Your task to perform on an android device: turn notification dots on Image 0: 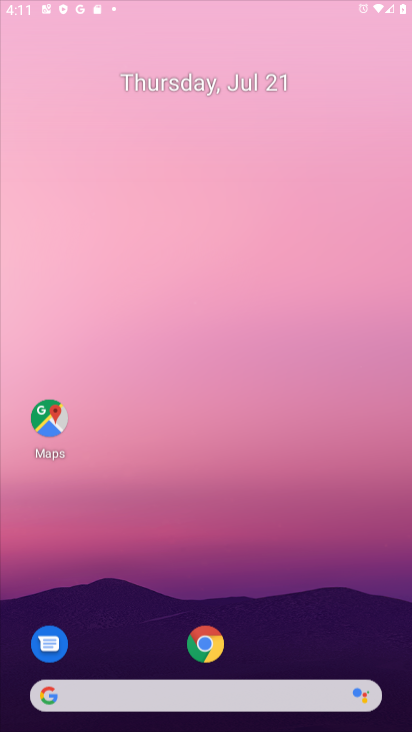
Step 0: press home button
Your task to perform on an android device: turn notification dots on Image 1: 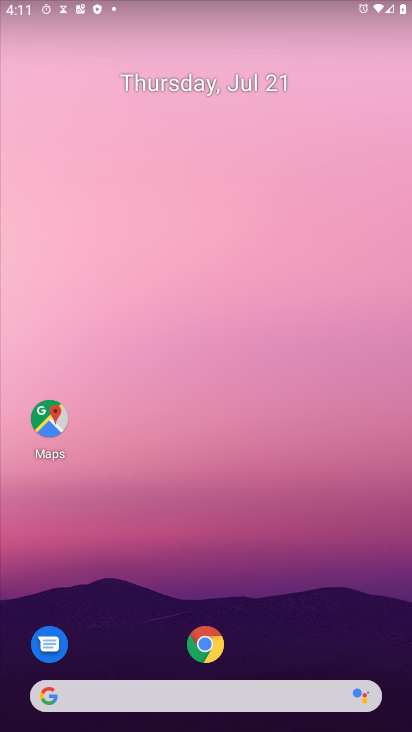
Step 1: drag from (302, 647) to (264, 134)
Your task to perform on an android device: turn notification dots on Image 2: 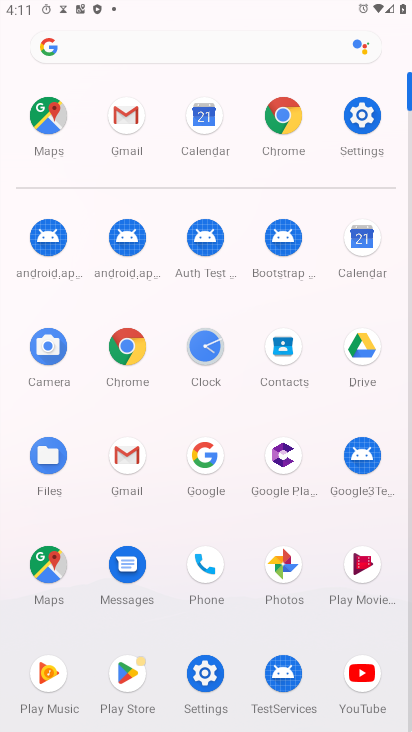
Step 2: click (362, 127)
Your task to perform on an android device: turn notification dots on Image 3: 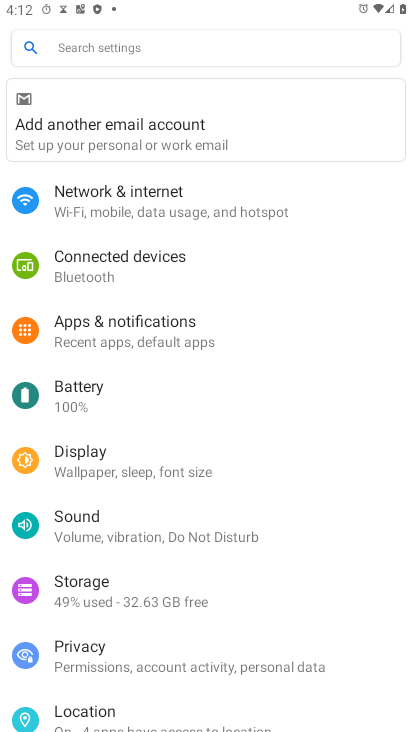
Step 3: click (124, 329)
Your task to perform on an android device: turn notification dots on Image 4: 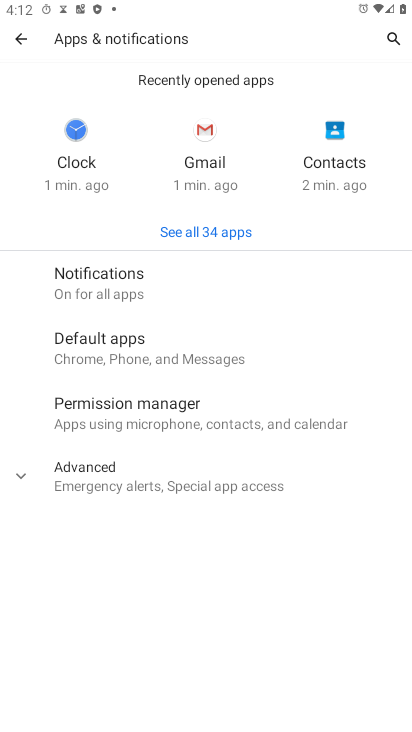
Step 4: click (104, 283)
Your task to perform on an android device: turn notification dots on Image 5: 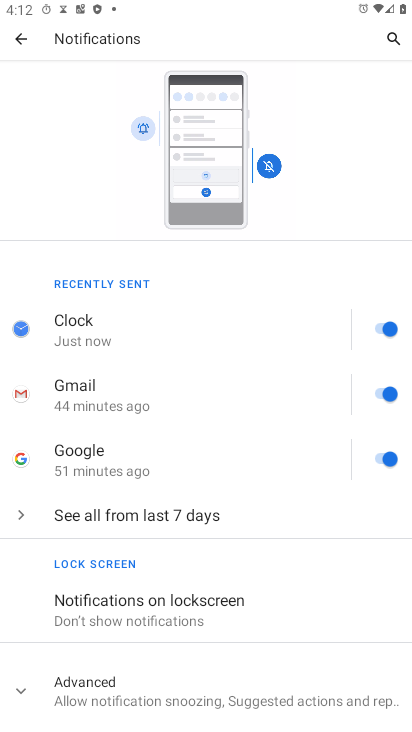
Step 5: click (80, 704)
Your task to perform on an android device: turn notification dots on Image 6: 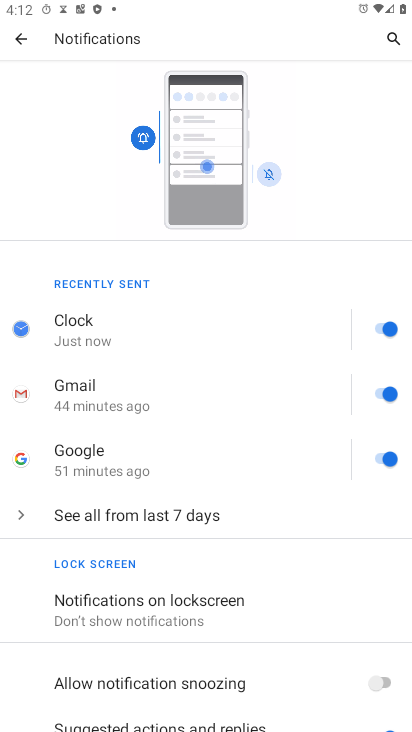
Step 6: task complete